Your task to perform on an android device: delete the emails in spam in the gmail app Image 0: 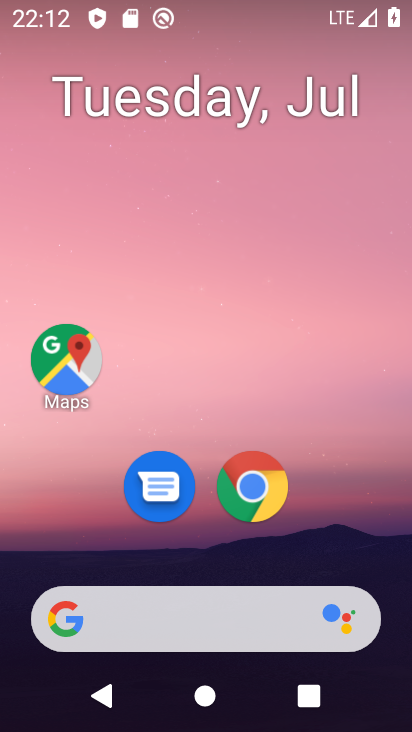
Step 0: press home button
Your task to perform on an android device: delete the emails in spam in the gmail app Image 1: 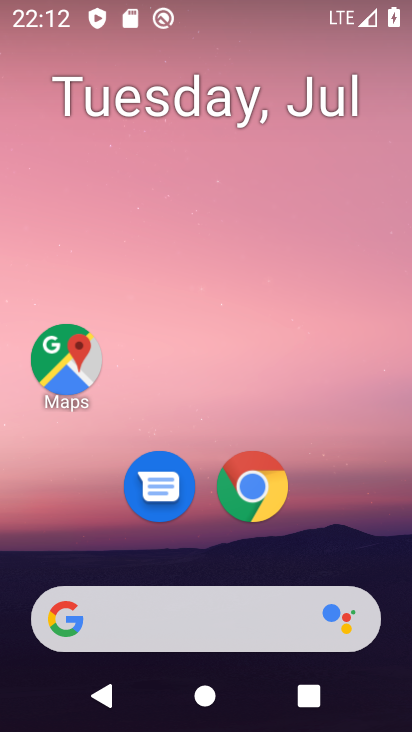
Step 1: drag from (354, 512) to (354, 155)
Your task to perform on an android device: delete the emails in spam in the gmail app Image 2: 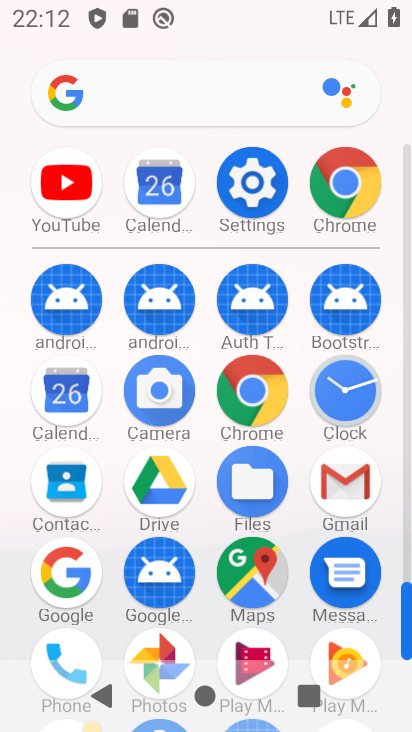
Step 2: click (383, 481)
Your task to perform on an android device: delete the emails in spam in the gmail app Image 3: 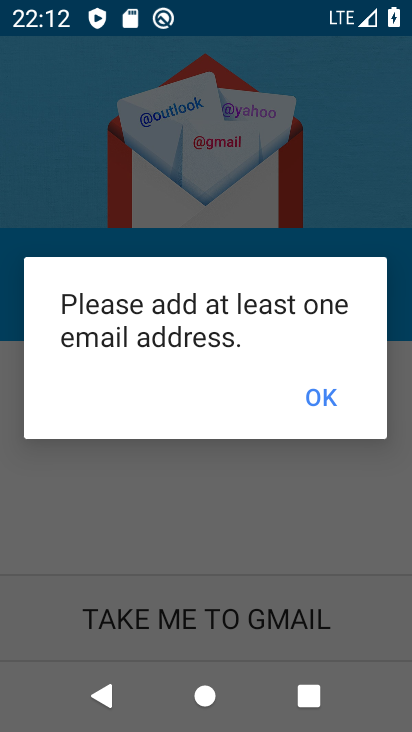
Step 3: task complete